Your task to perform on an android device: add a contact Image 0: 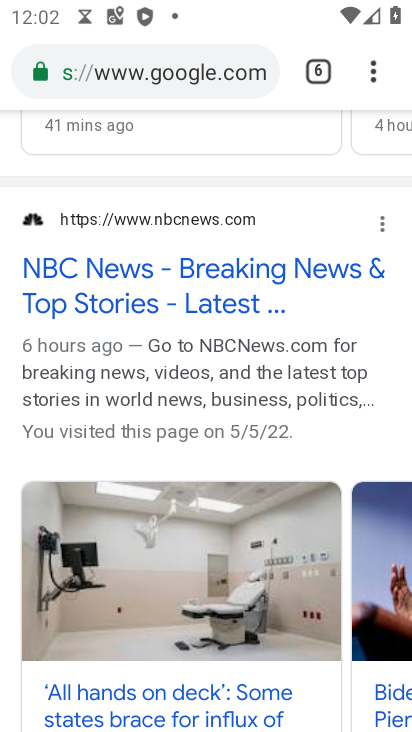
Step 0: press home button
Your task to perform on an android device: add a contact Image 1: 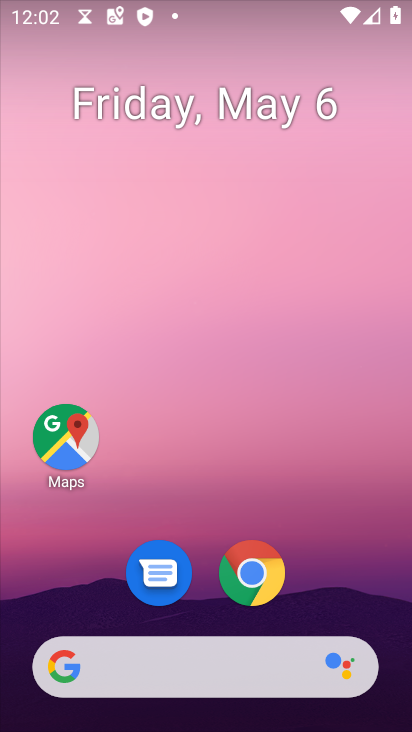
Step 1: drag from (313, 586) to (347, 285)
Your task to perform on an android device: add a contact Image 2: 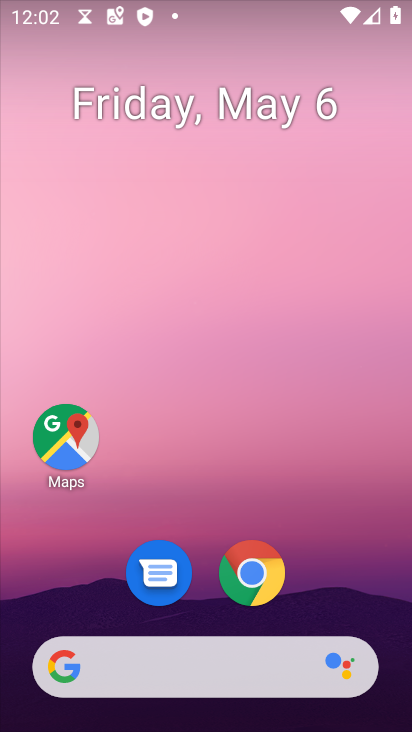
Step 2: drag from (340, 573) to (311, 212)
Your task to perform on an android device: add a contact Image 3: 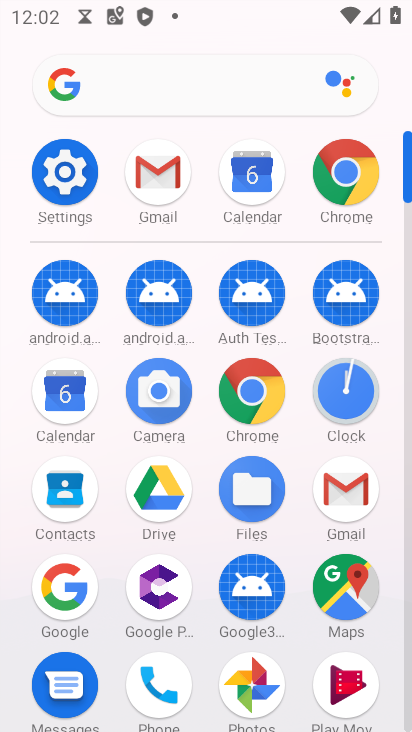
Step 3: click (144, 673)
Your task to perform on an android device: add a contact Image 4: 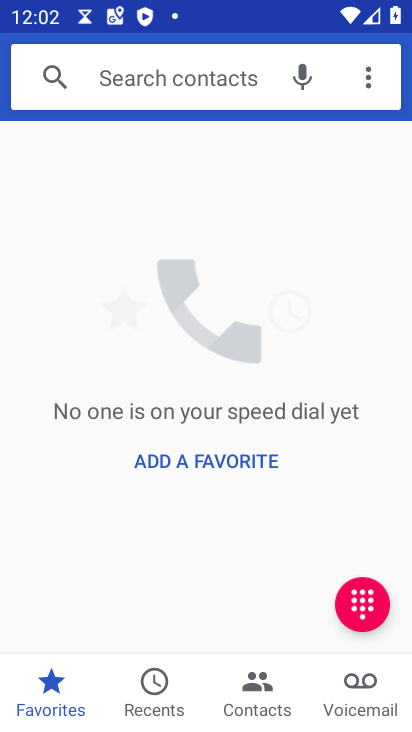
Step 4: click (255, 460)
Your task to perform on an android device: add a contact Image 5: 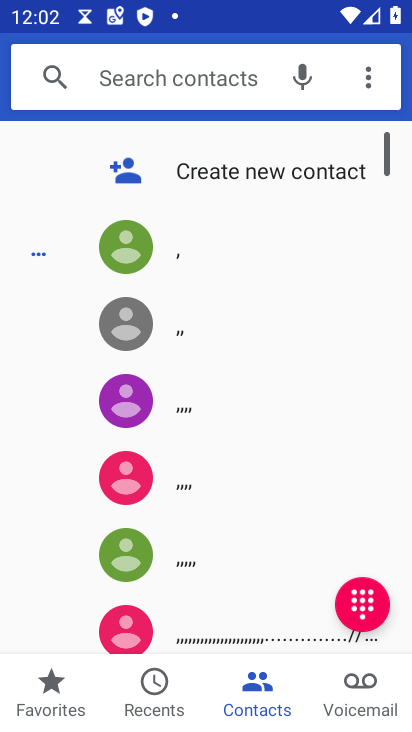
Step 5: click (214, 178)
Your task to perform on an android device: add a contact Image 6: 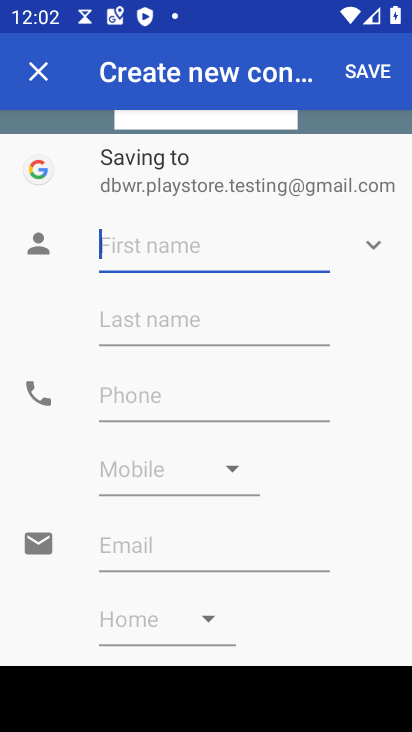
Step 6: click (168, 254)
Your task to perform on an android device: add a contact Image 7: 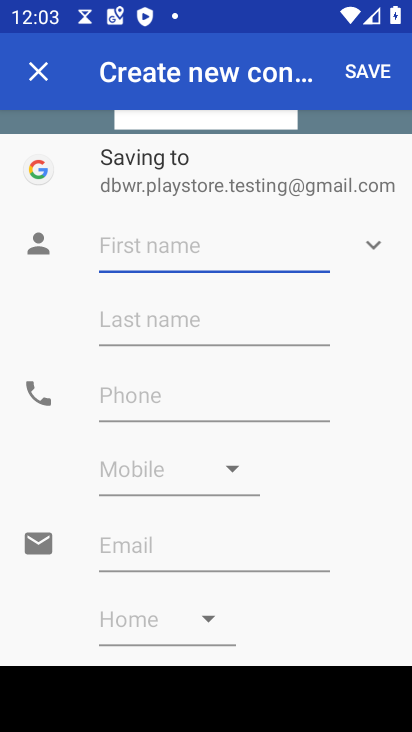
Step 7: type "yyyyyyyyyyyyyyyy"
Your task to perform on an android device: add a contact Image 8: 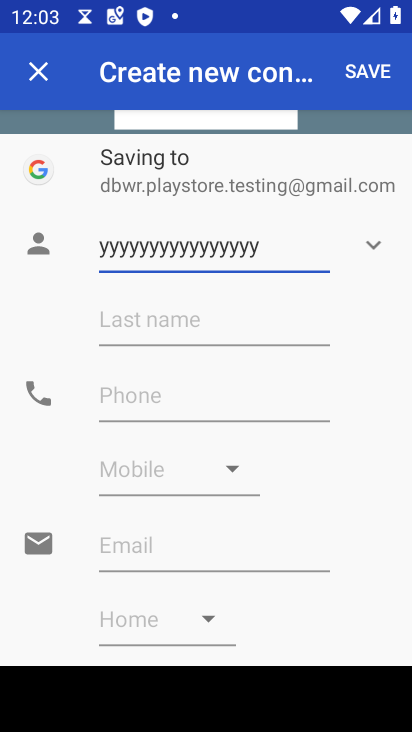
Step 8: click (157, 401)
Your task to perform on an android device: add a contact Image 9: 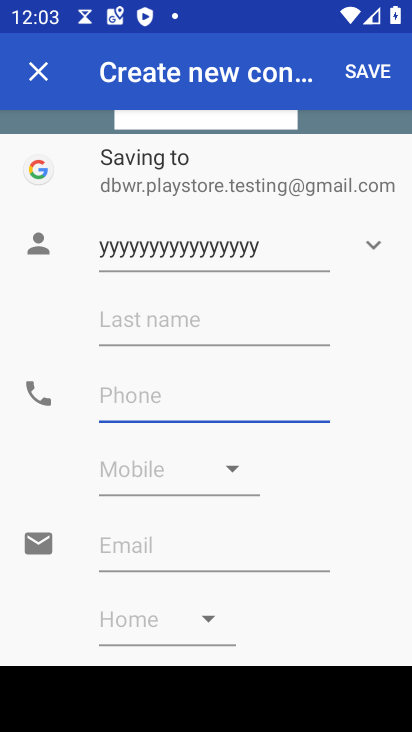
Step 9: type "00000000000000"
Your task to perform on an android device: add a contact Image 10: 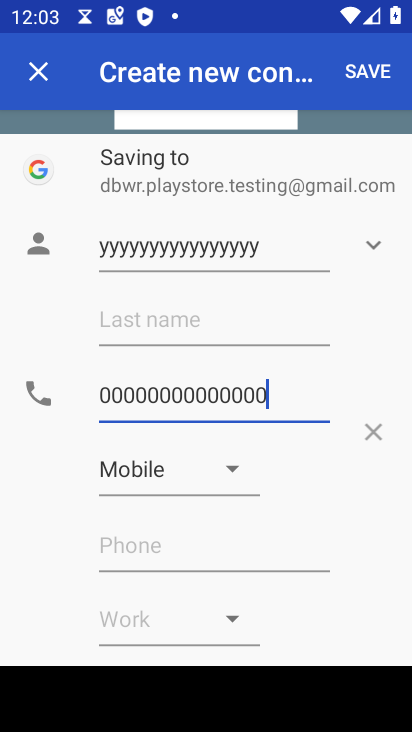
Step 10: click (372, 73)
Your task to perform on an android device: add a contact Image 11: 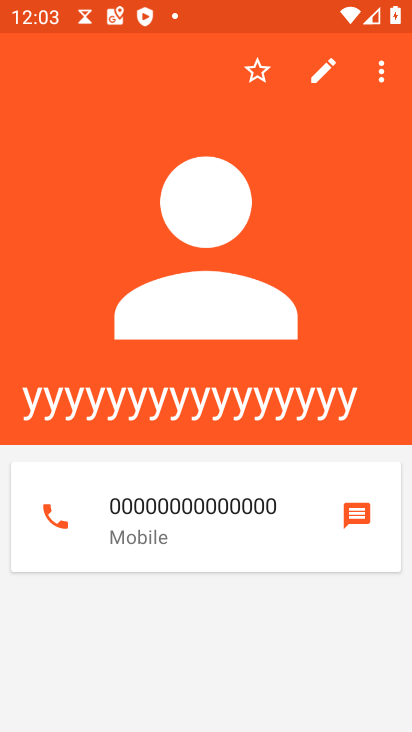
Step 11: task complete